Your task to perform on an android device: open wifi settings Image 0: 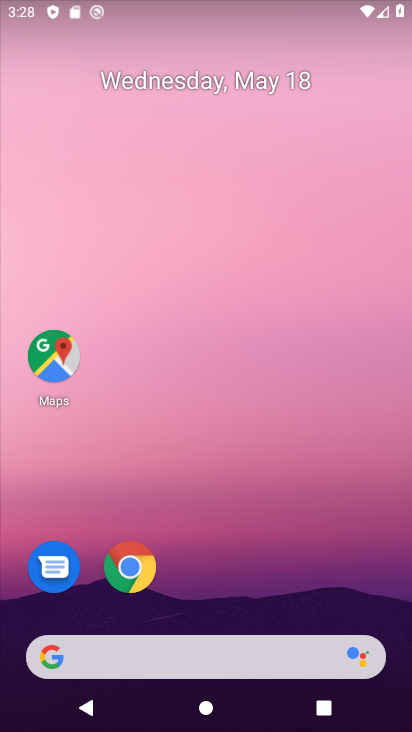
Step 0: drag from (161, 11) to (163, 437)
Your task to perform on an android device: open wifi settings Image 1: 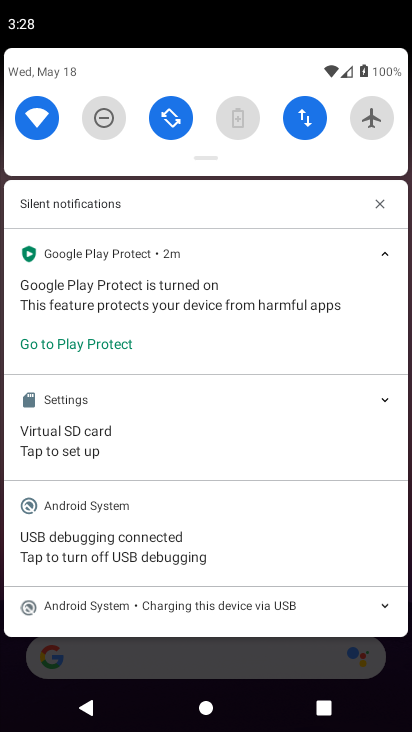
Step 1: click (36, 128)
Your task to perform on an android device: open wifi settings Image 2: 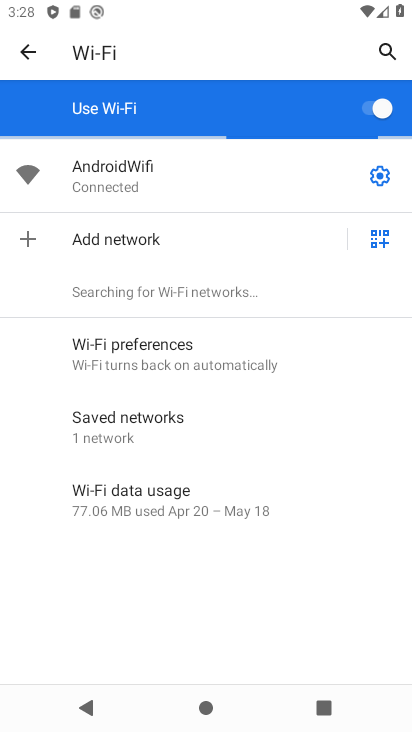
Step 2: task complete